Your task to perform on an android device: turn on location history Image 0: 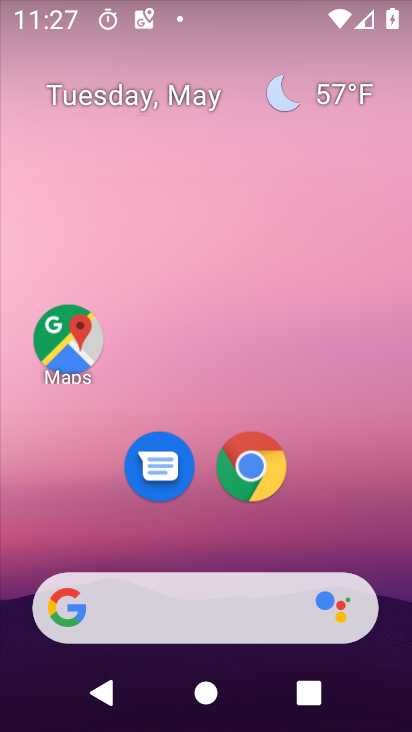
Step 0: drag from (170, 573) to (170, 188)
Your task to perform on an android device: turn on location history Image 1: 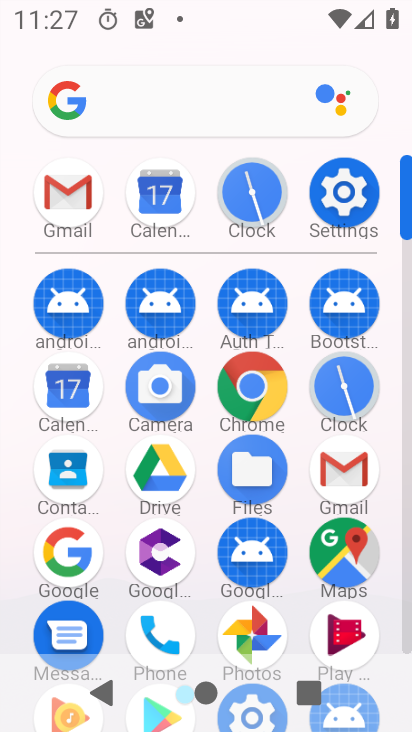
Step 1: click (327, 200)
Your task to perform on an android device: turn on location history Image 2: 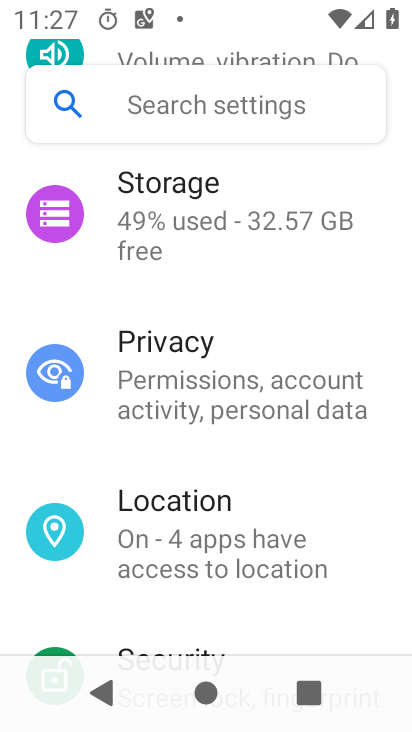
Step 2: click (340, 201)
Your task to perform on an android device: turn on location history Image 3: 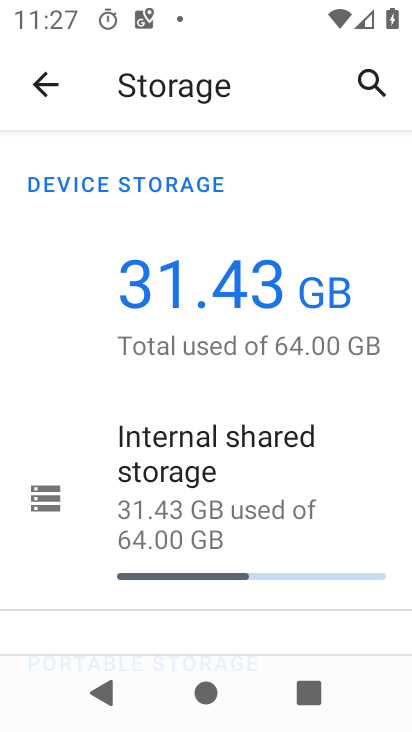
Step 3: click (36, 87)
Your task to perform on an android device: turn on location history Image 4: 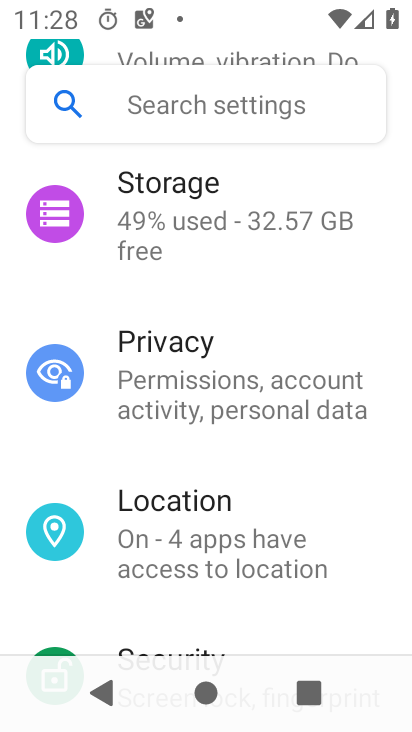
Step 4: click (204, 526)
Your task to perform on an android device: turn on location history Image 5: 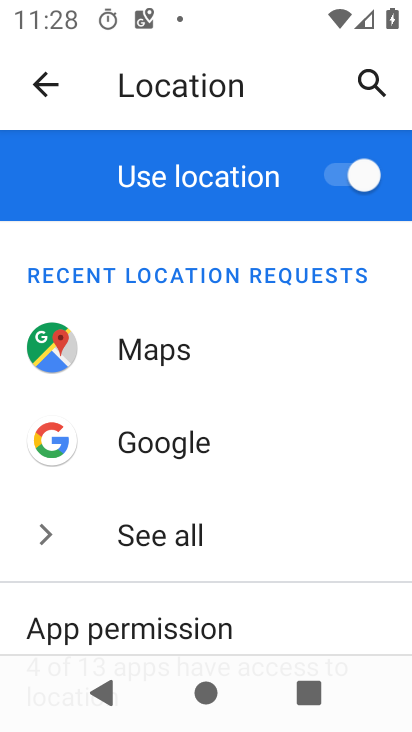
Step 5: click (199, 240)
Your task to perform on an android device: turn on location history Image 6: 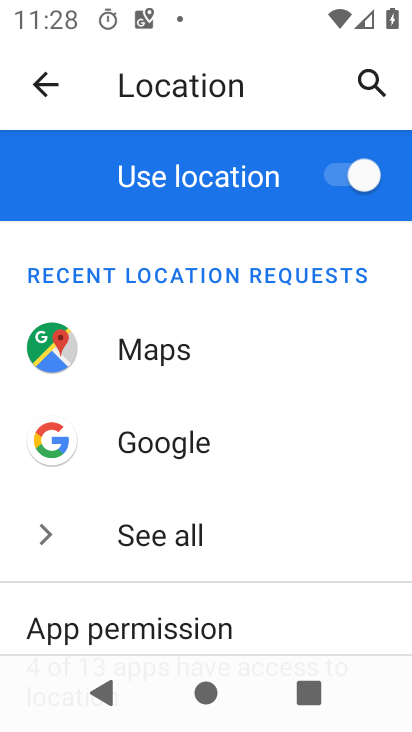
Step 6: drag from (237, 602) to (289, 102)
Your task to perform on an android device: turn on location history Image 7: 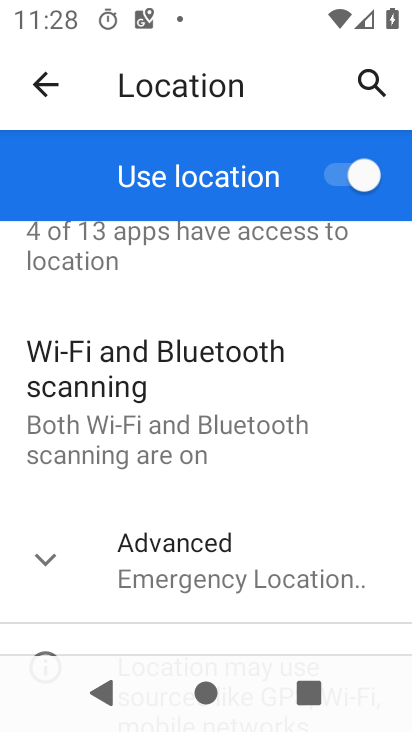
Step 7: click (217, 568)
Your task to perform on an android device: turn on location history Image 8: 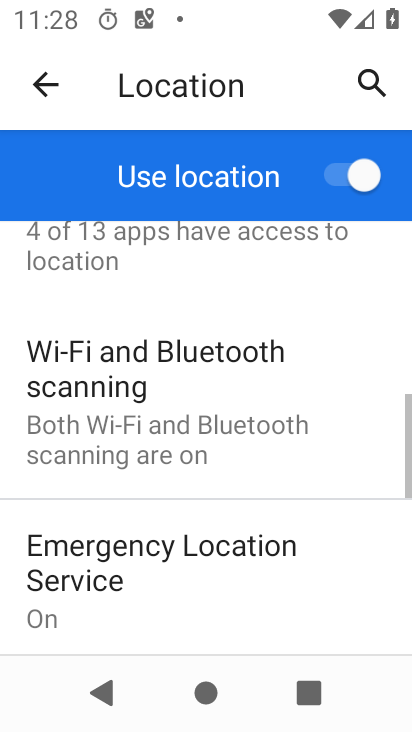
Step 8: drag from (258, 494) to (286, 244)
Your task to perform on an android device: turn on location history Image 9: 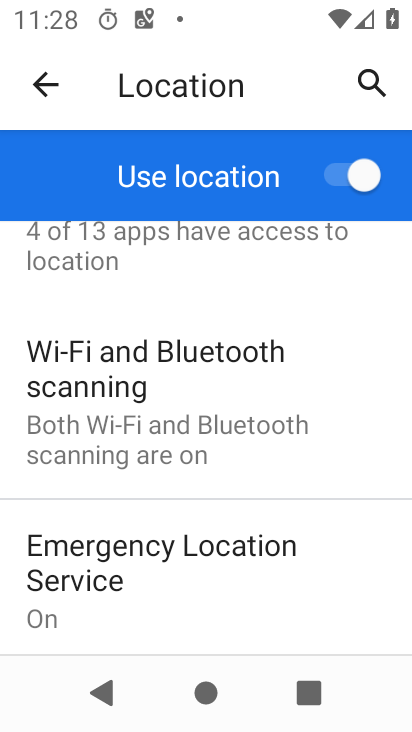
Step 9: drag from (313, 635) to (334, 256)
Your task to perform on an android device: turn on location history Image 10: 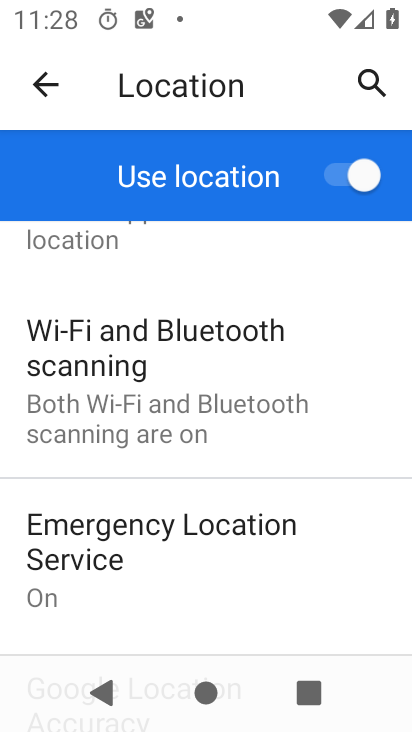
Step 10: drag from (218, 640) to (269, 275)
Your task to perform on an android device: turn on location history Image 11: 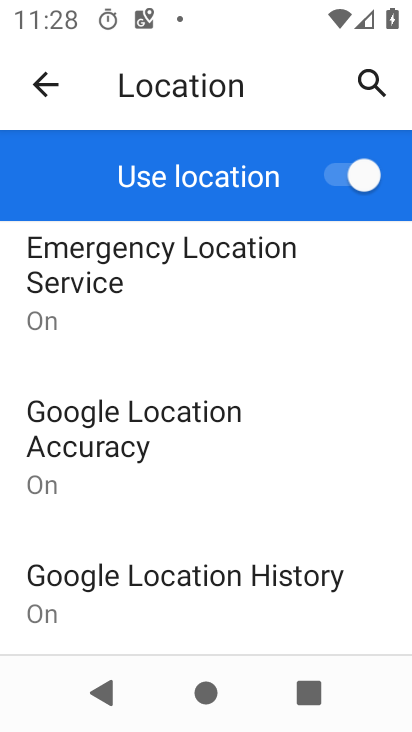
Step 11: click (162, 616)
Your task to perform on an android device: turn on location history Image 12: 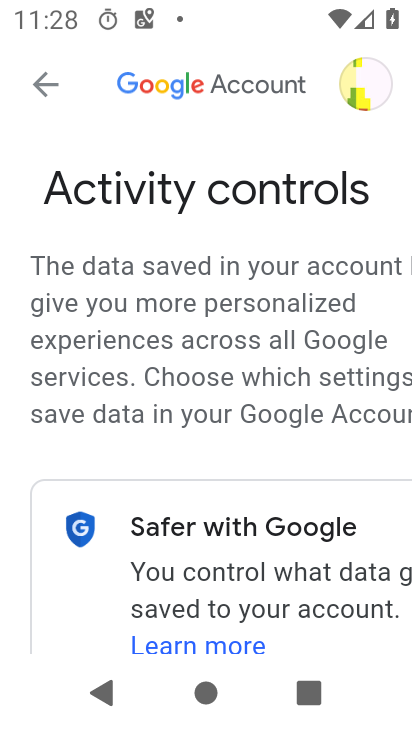
Step 12: drag from (280, 510) to (278, 279)
Your task to perform on an android device: turn on location history Image 13: 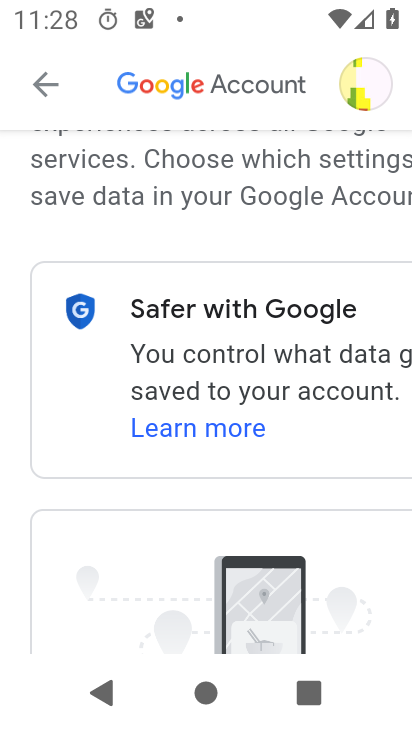
Step 13: drag from (316, 632) to (331, 265)
Your task to perform on an android device: turn on location history Image 14: 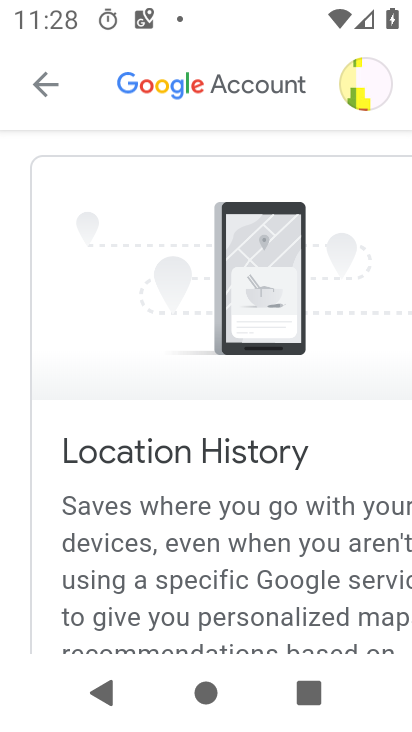
Step 14: drag from (143, 599) to (169, 282)
Your task to perform on an android device: turn on location history Image 15: 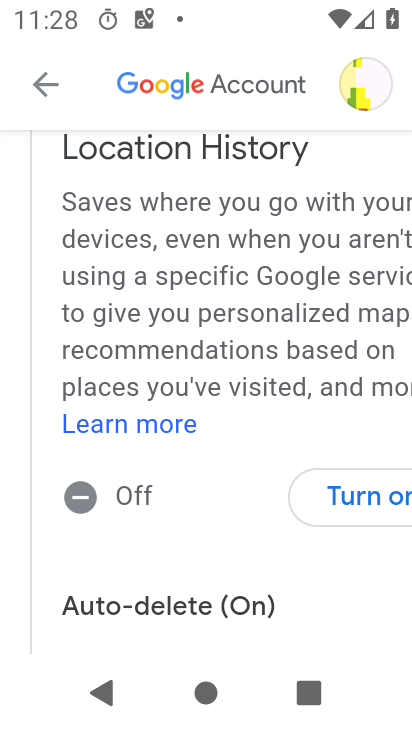
Step 15: click (364, 494)
Your task to perform on an android device: turn on location history Image 16: 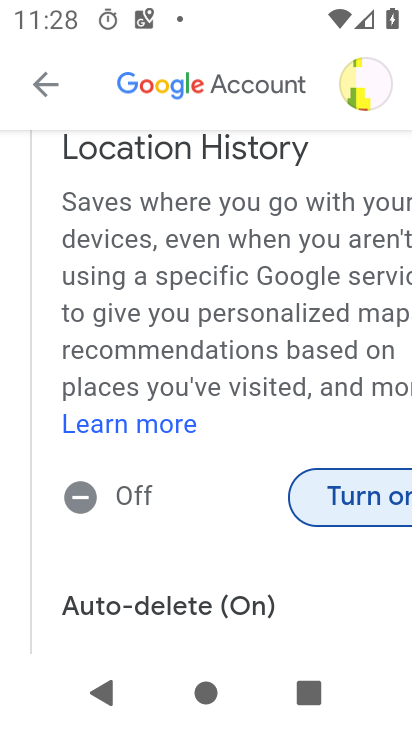
Step 16: click (364, 493)
Your task to perform on an android device: turn on location history Image 17: 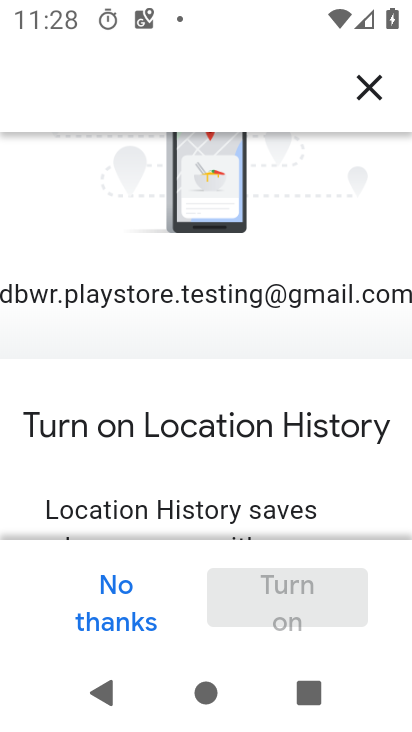
Step 17: drag from (277, 454) to (315, 140)
Your task to perform on an android device: turn on location history Image 18: 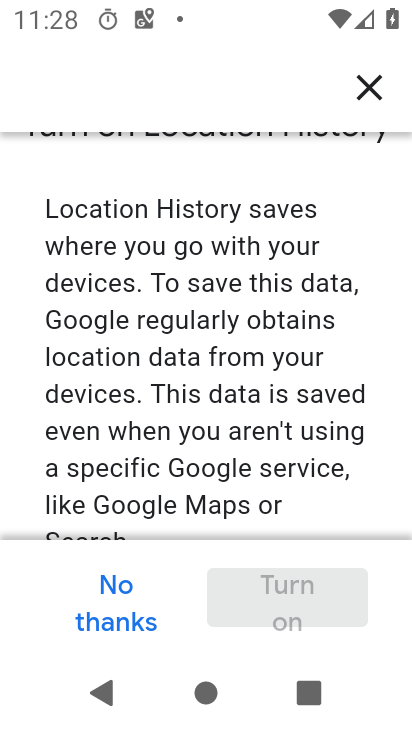
Step 18: drag from (333, 489) to (333, 202)
Your task to perform on an android device: turn on location history Image 19: 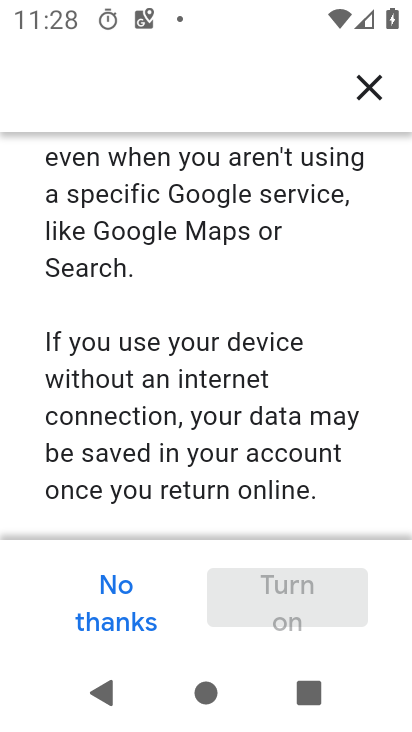
Step 19: drag from (292, 511) to (292, 222)
Your task to perform on an android device: turn on location history Image 20: 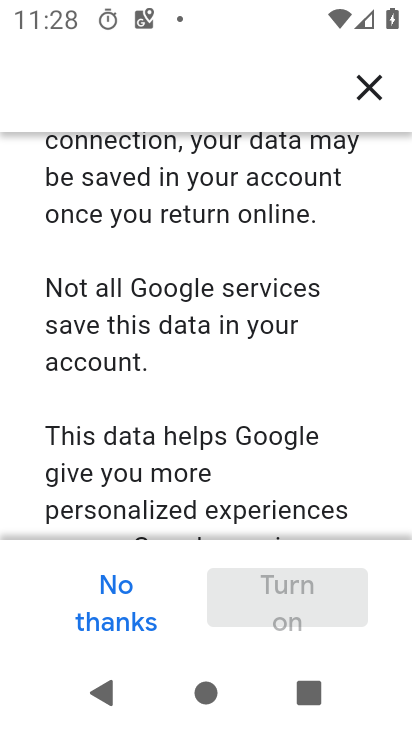
Step 20: drag from (287, 515) to (303, 213)
Your task to perform on an android device: turn on location history Image 21: 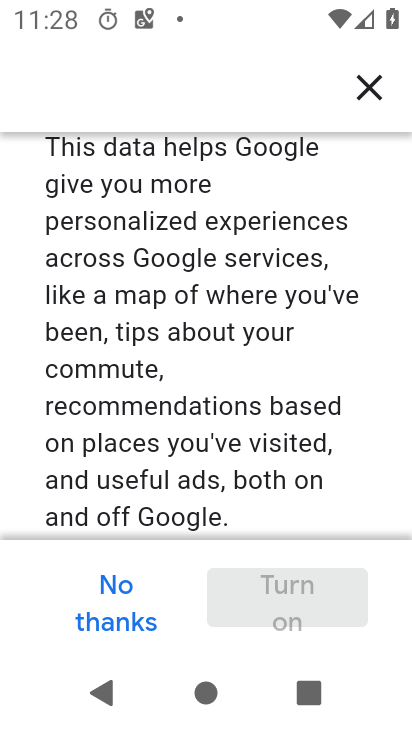
Step 21: drag from (299, 522) to (335, 213)
Your task to perform on an android device: turn on location history Image 22: 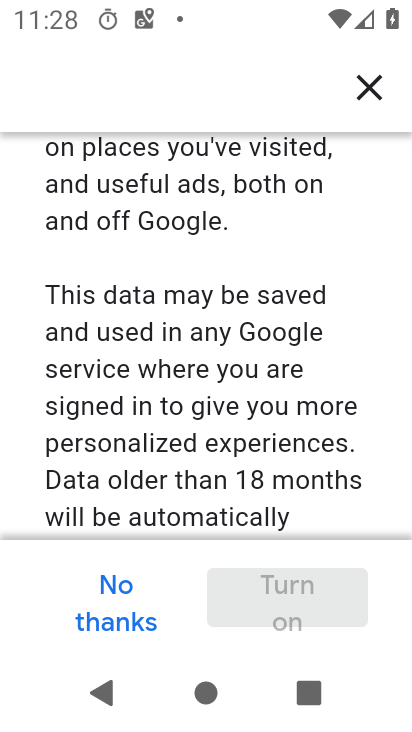
Step 22: drag from (280, 512) to (307, 167)
Your task to perform on an android device: turn on location history Image 23: 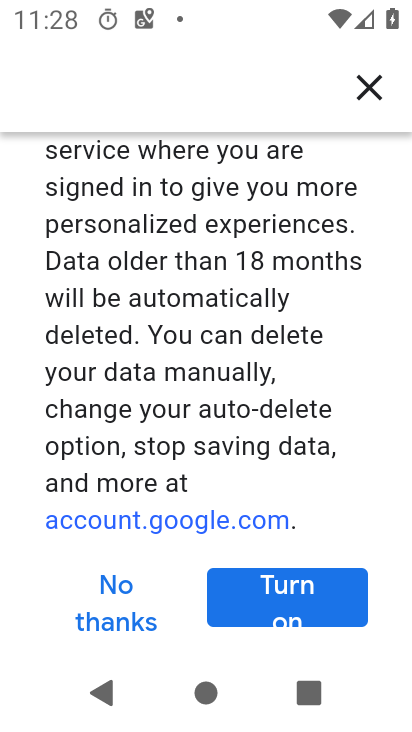
Step 23: click (332, 590)
Your task to perform on an android device: turn on location history Image 24: 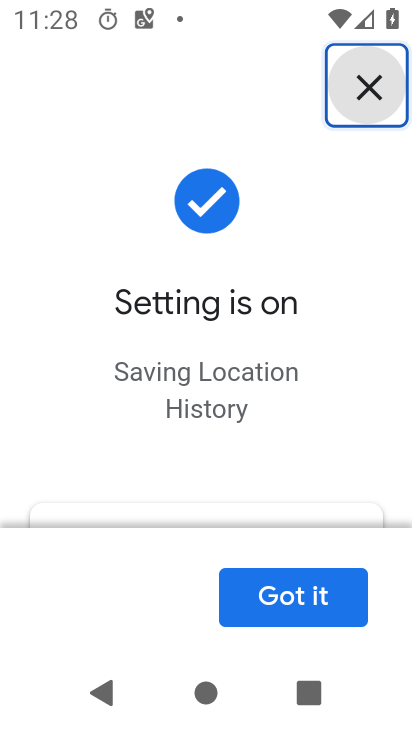
Step 24: click (306, 602)
Your task to perform on an android device: turn on location history Image 25: 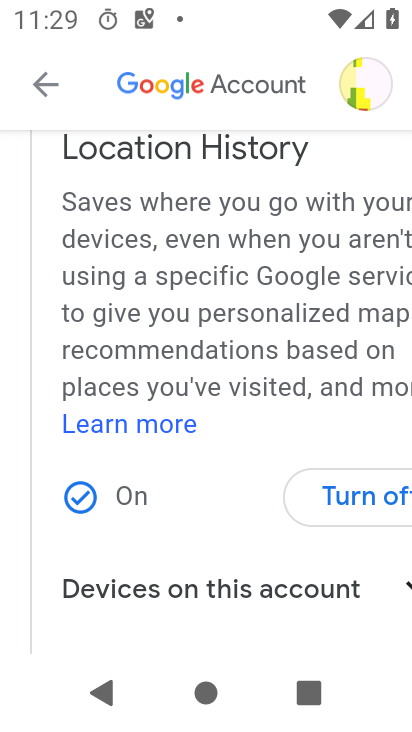
Step 25: task complete